Your task to perform on an android device: Open calendar and show me the second week of next month Image 0: 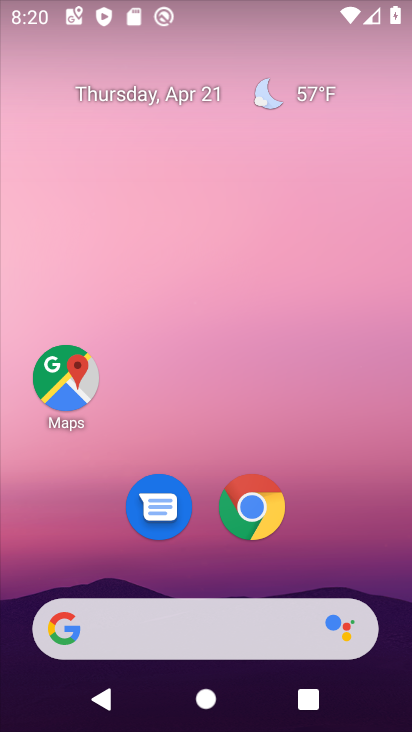
Step 0: drag from (327, 534) to (287, 53)
Your task to perform on an android device: Open calendar and show me the second week of next month Image 1: 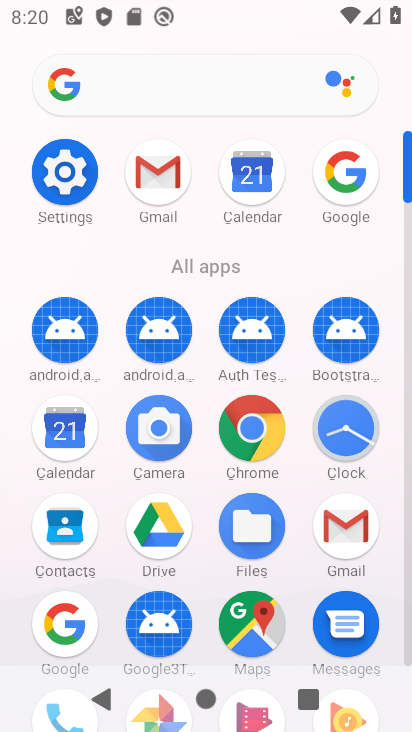
Step 1: click (259, 171)
Your task to perform on an android device: Open calendar and show me the second week of next month Image 2: 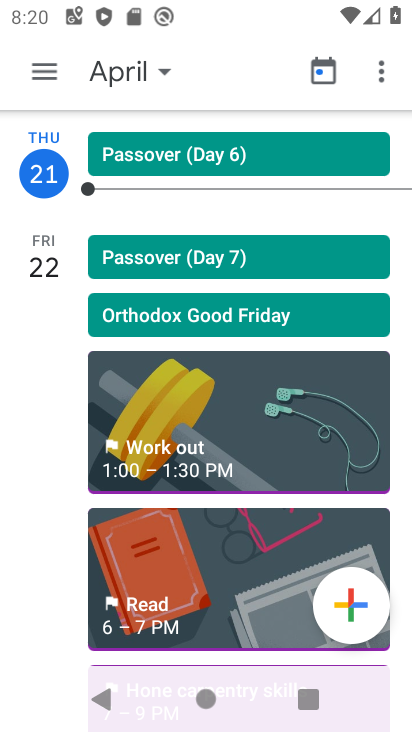
Step 2: click (150, 78)
Your task to perform on an android device: Open calendar and show me the second week of next month Image 3: 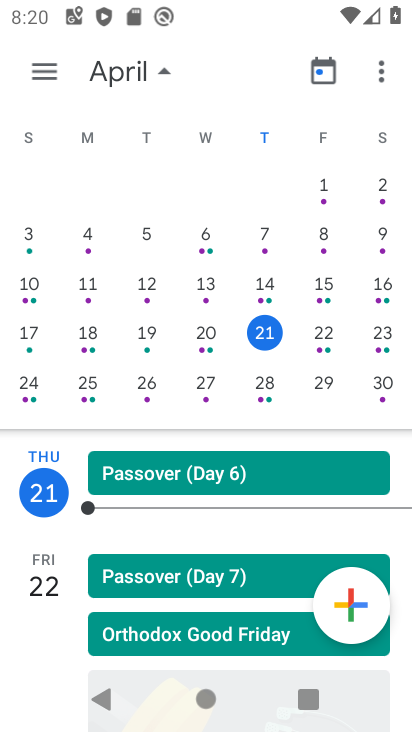
Step 3: drag from (361, 271) to (0, 272)
Your task to perform on an android device: Open calendar and show me the second week of next month Image 4: 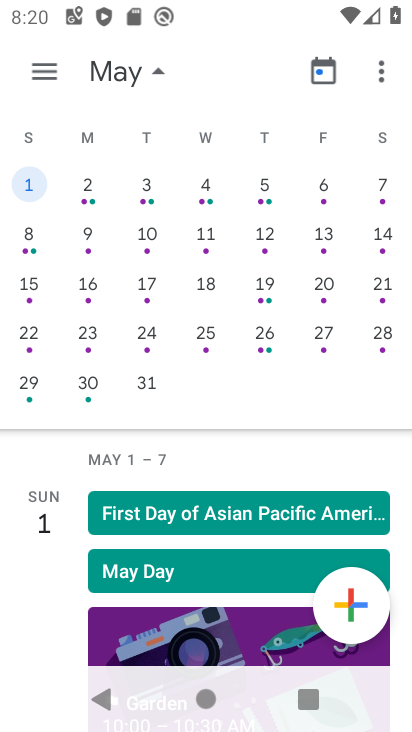
Step 4: click (44, 239)
Your task to perform on an android device: Open calendar and show me the second week of next month Image 5: 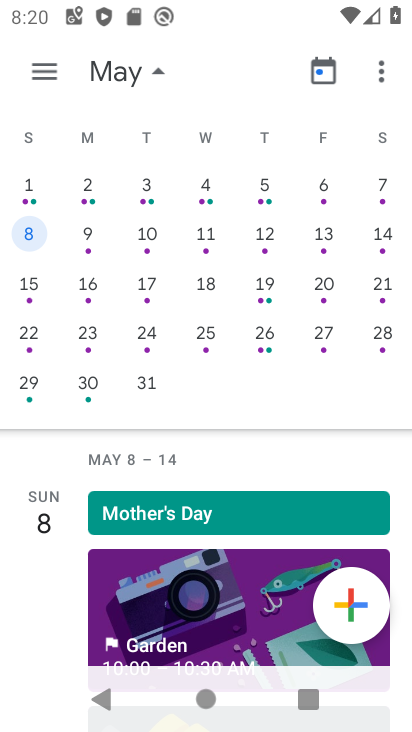
Step 5: task complete